Your task to perform on an android device: choose inbox layout in the gmail app Image 0: 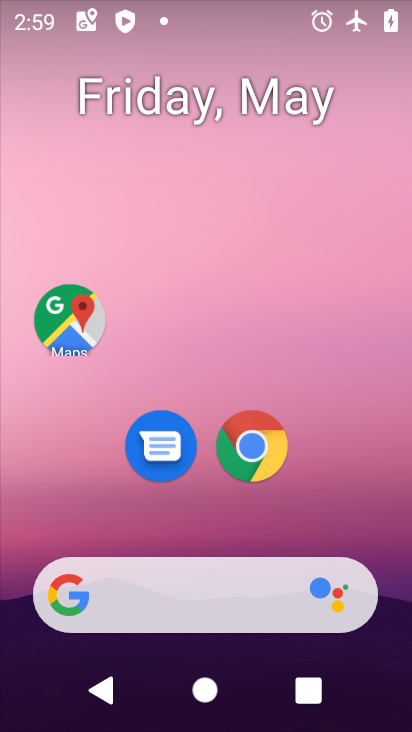
Step 0: drag from (400, 553) to (354, 163)
Your task to perform on an android device: choose inbox layout in the gmail app Image 1: 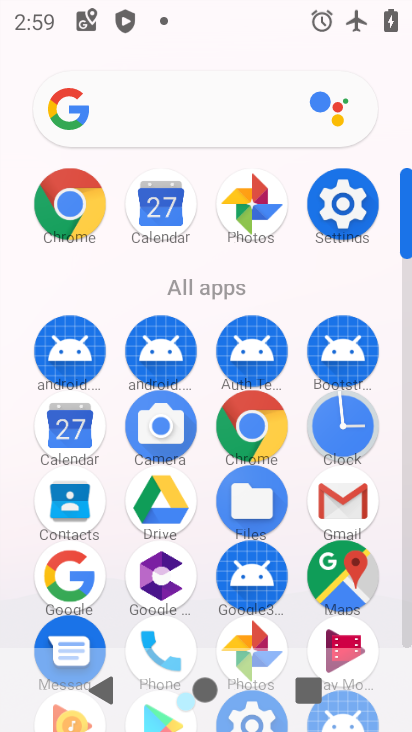
Step 1: click (364, 506)
Your task to perform on an android device: choose inbox layout in the gmail app Image 2: 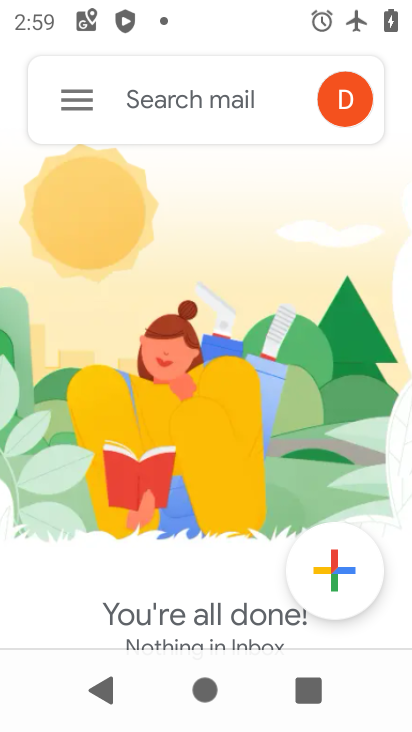
Step 2: click (76, 116)
Your task to perform on an android device: choose inbox layout in the gmail app Image 3: 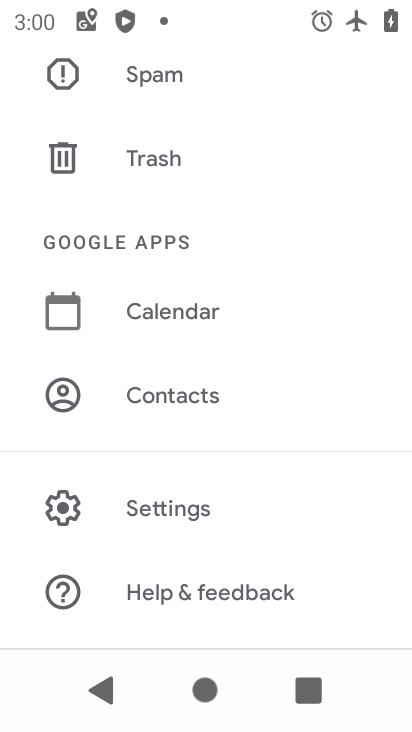
Step 3: click (212, 509)
Your task to perform on an android device: choose inbox layout in the gmail app Image 4: 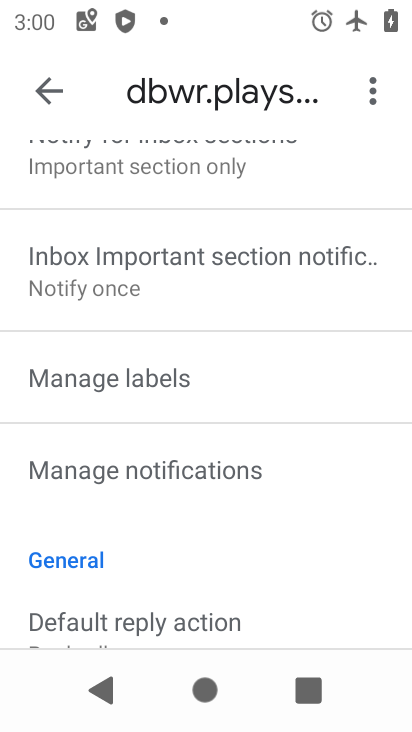
Step 4: drag from (206, 226) to (211, 613)
Your task to perform on an android device: choose inbox layout in the gmail app Image 5: 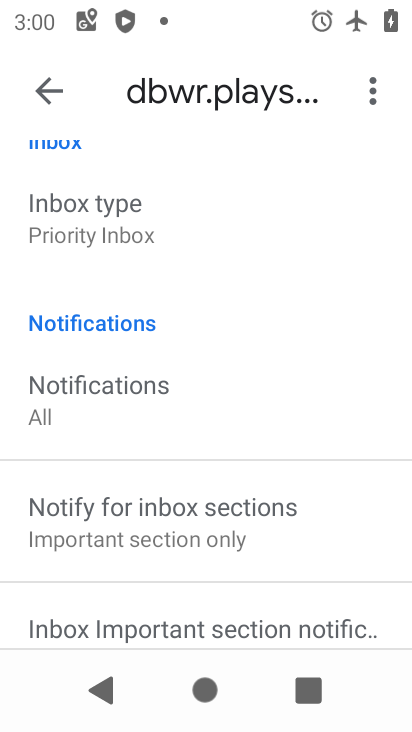
Step 5: click (197, 213)
Your task to perform on an android device: choose inbox layout in the gmail app Image 6: 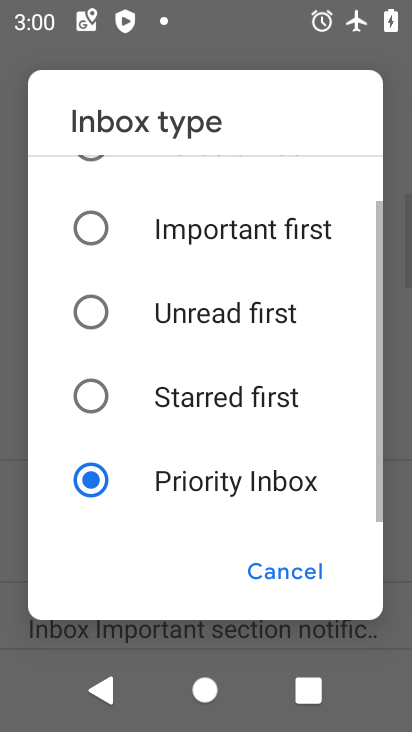
Step 6: click (206, 227)
Your task to perform on an android device: choose inbox layout in the gmail app Image 7: 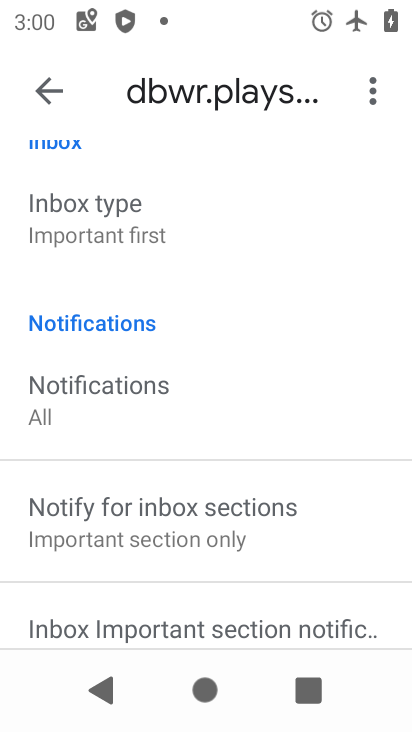
Step 7: task complete